Your task to perform on an android device: change the clock display to digital Image 0: 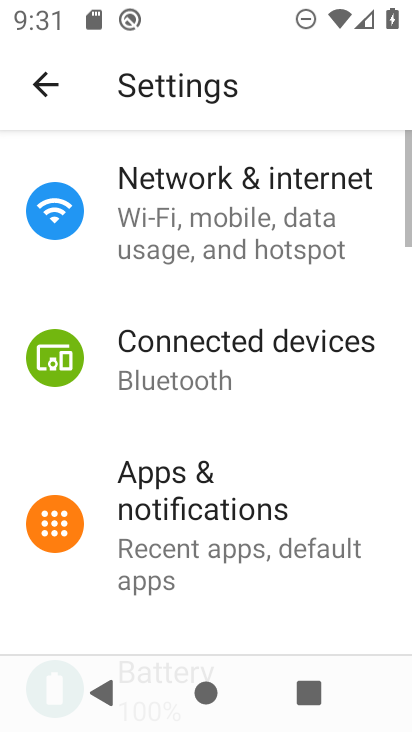
Step 0: press home button
Your task to perform on an android device: change the clock display to digital Image 1: 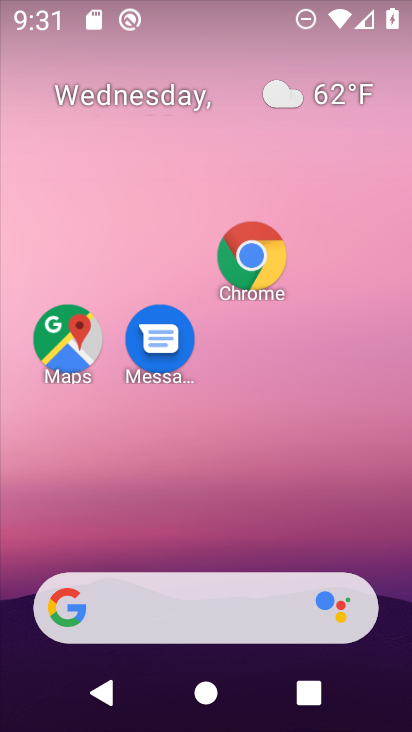
Step 1: drag from (255, 480) to (174, 117)
Your task to perform on an android device: change the clock display to digital Image 2: 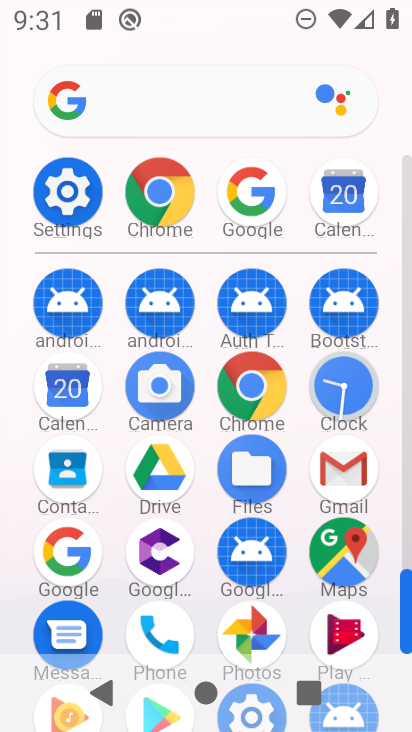
Step 2: click (341, 384)
Your task to perform on an android device: change the clock display to digital Image 3: 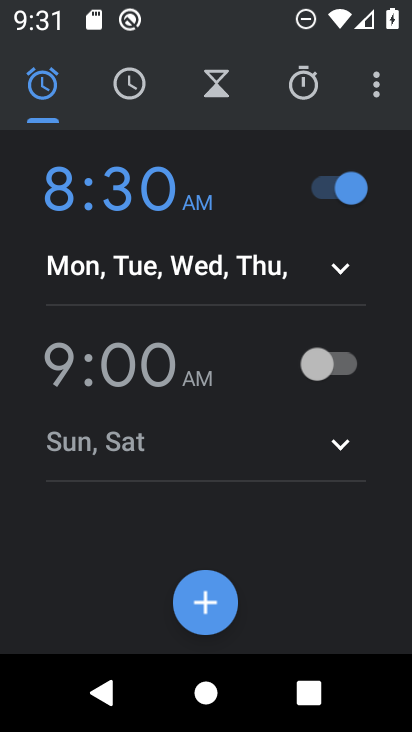
Step 3: click (376, 83)
Your task to perform on an android device: change the clock display to digital Image 4: 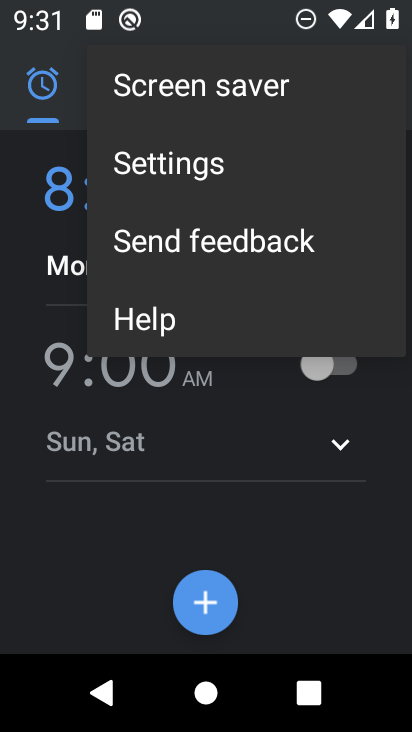
Step 4: click (213, 169)
Your task to perform on an android device: change the clock display to digital Image 5: 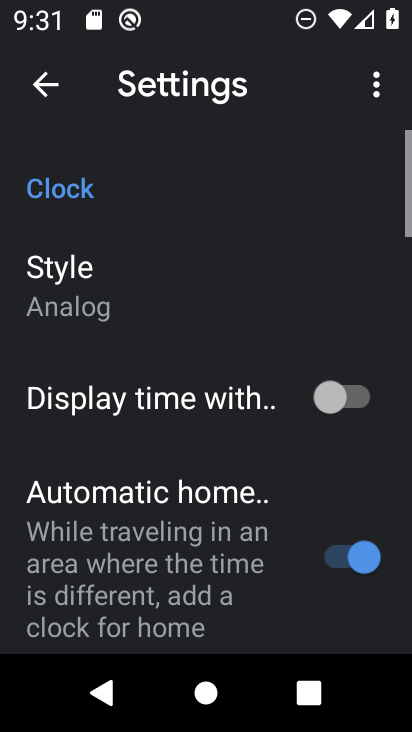
Step 5: click (205, 286)
Your task to perform on an android device: change the clock display to digital Image 6: 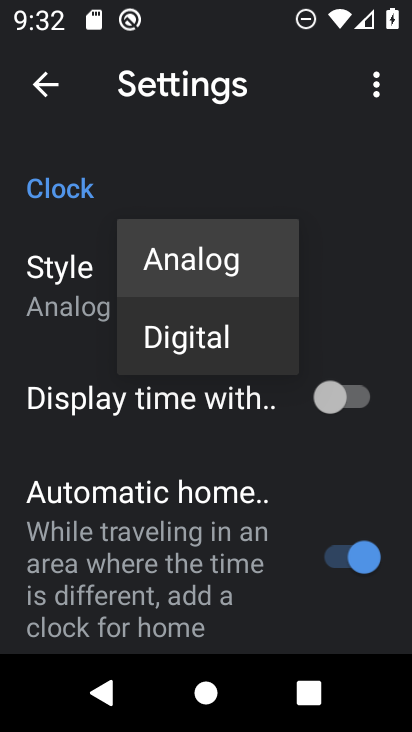
Step 6: click (198, 338)
Your task to perform on an android device: change the clock display to digital Image 7: 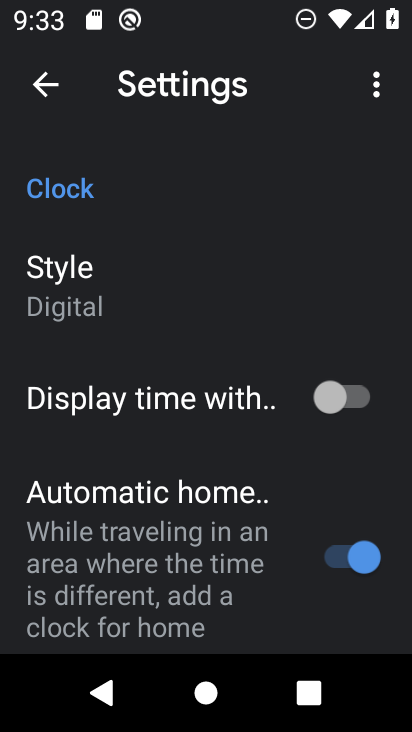
Step 7: task complete